Your task to perform on an android device: open device folders in google photos Image 0: 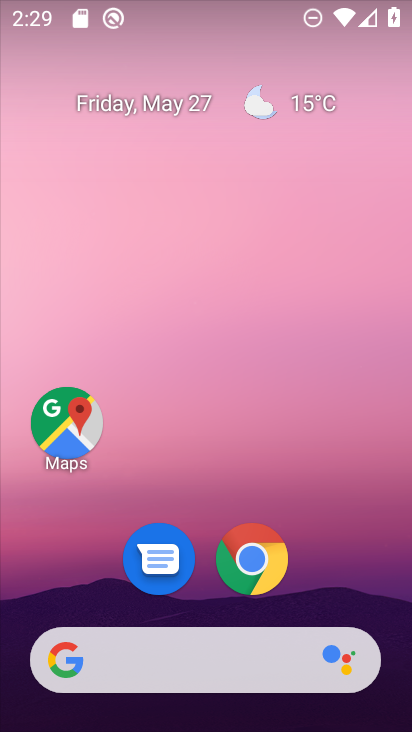
Step 0: drag from (341, 653) to (307, 1)
Your task to perform on an android device: open device folders in google photos Image 1: 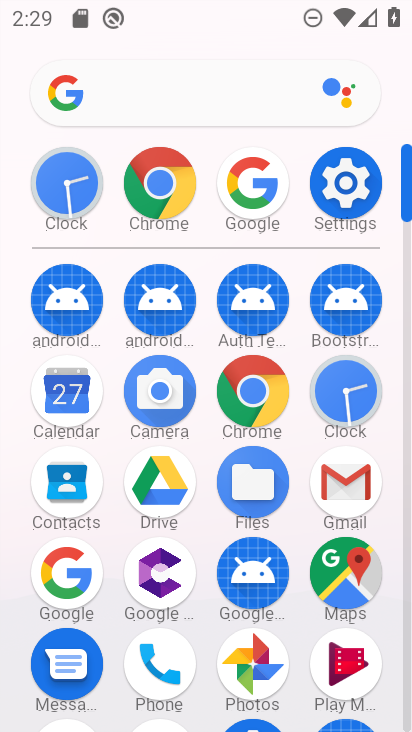
Step 1: click (269, 665)
Your task to perform on an android device: open device folders in google photos Image 2: 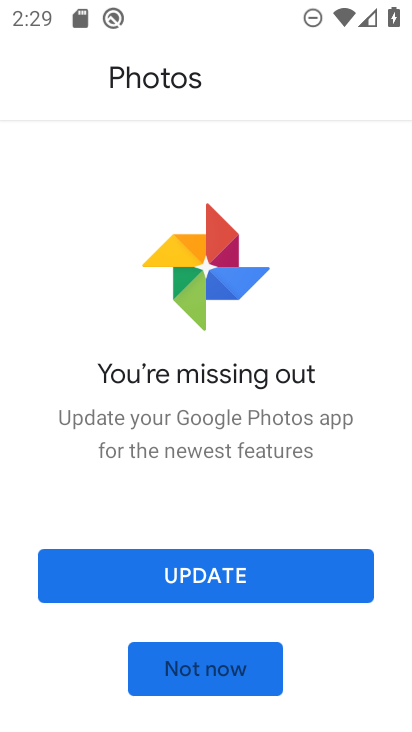
Step 2: click (228, 585)
Your task to perform on an android device: open device folders in google photos Image 3: 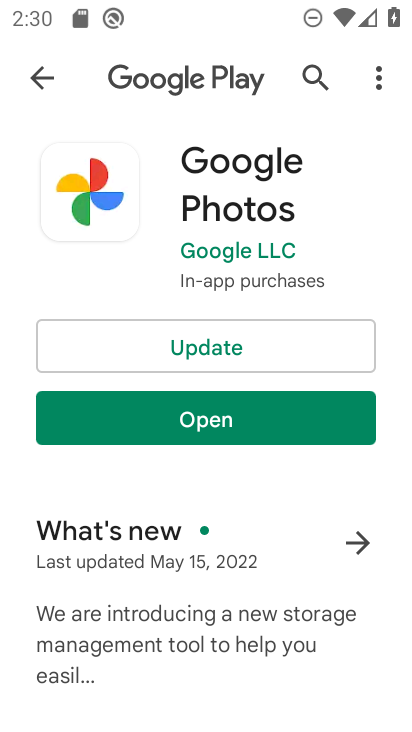
Step 3: click (248, 348)
Your task to perform on an android device: open device folders in google photos Image 4: 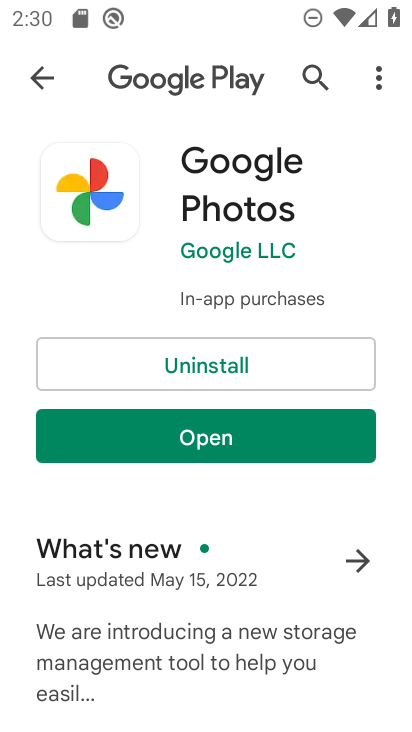
Step 4: click (308, 440)
Your task to perform on an android device: open device folders in google photos Image 5: 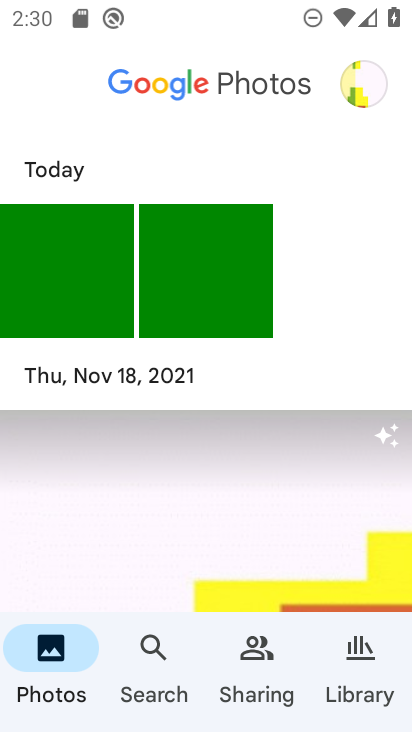
Step 5: click (359, 69)
Your task to perform on an android device: open device folders in google photos Image 6: 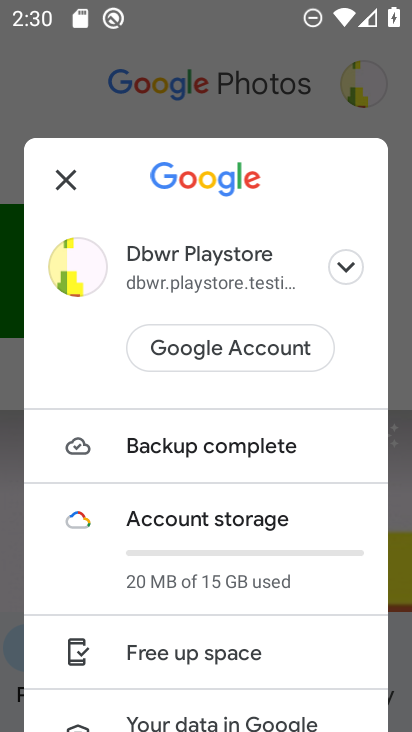
Step 6: task complete